Your task to perform on an android device: change keyboard looks Image 0: 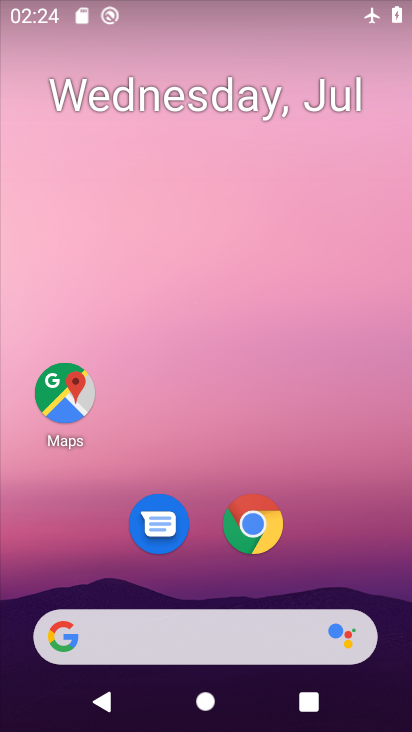
Step 0: drag from (246, 448) to (262, 27)
Your task to perform on an android device: change keyboard looks Image 1: 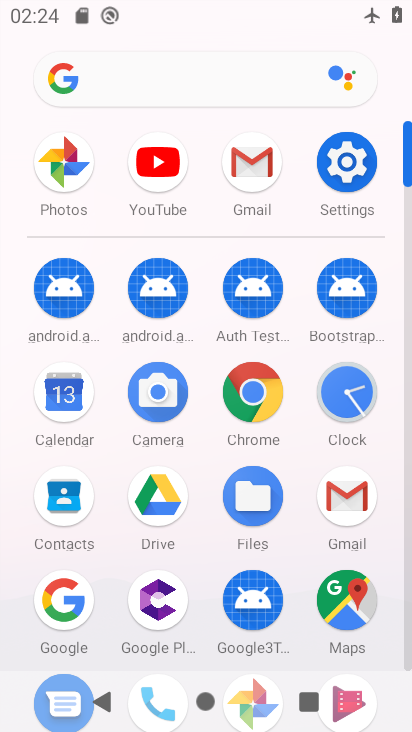
Step 1: click (346, 170)
Your task to perform on an android device: change keyboard looks Image 2: 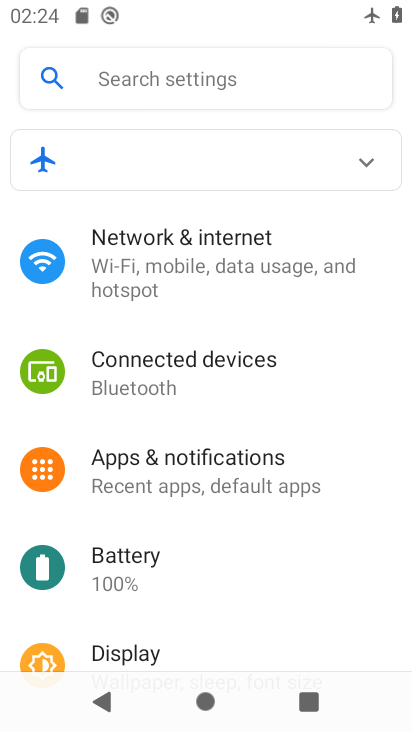
Step 2: drag from (184, 531) to (261, 31)
Your task to perform on an android device: change keyboard looks Image 3: 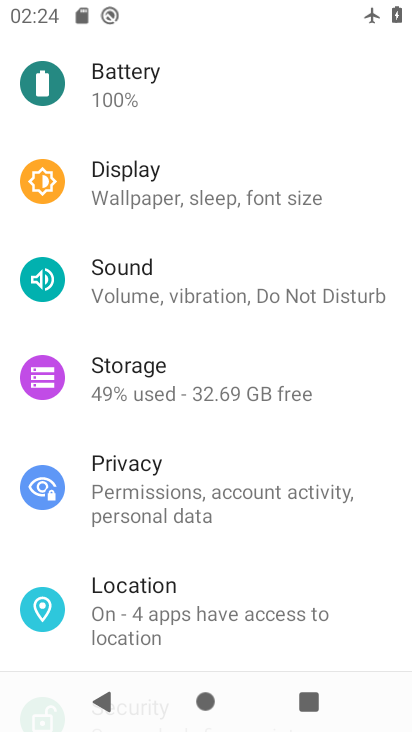
Step 3: drag from (246, 555) to (241, 66)
Your task to perform on an android device: change keyboard looks Image 4: 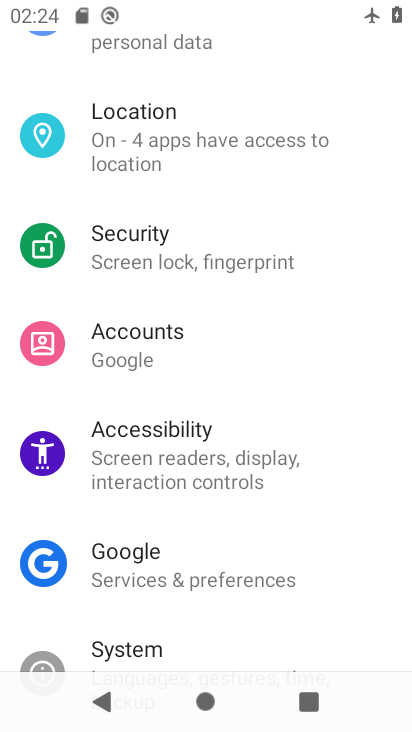
Step 4: drag from (210, 605) to (235, 434)
Your task to perform on an android device: change keyboard looks Image 5: 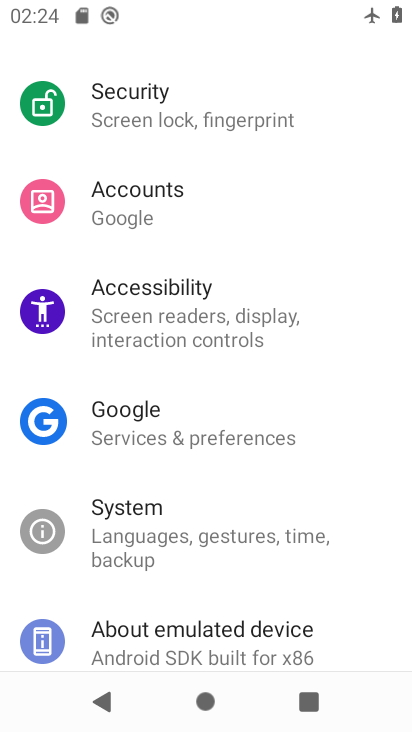
Step 5: click (225, 531)
Your task to perform on an android device: change keyboard looks Image 6: 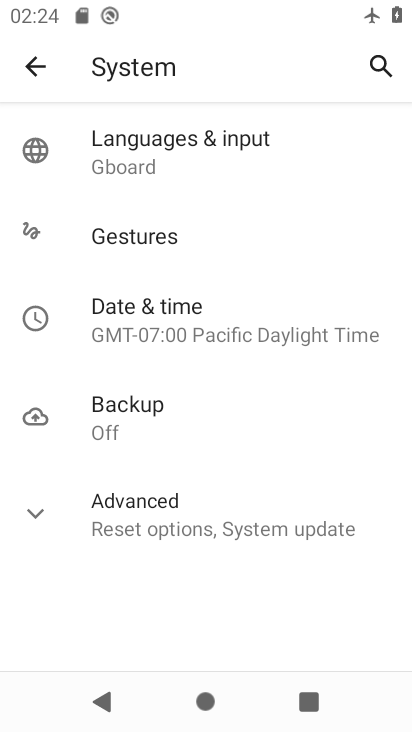
Step 6: click (158, 145)
Your task to perform on an android device: change keyboard looks Image 7: 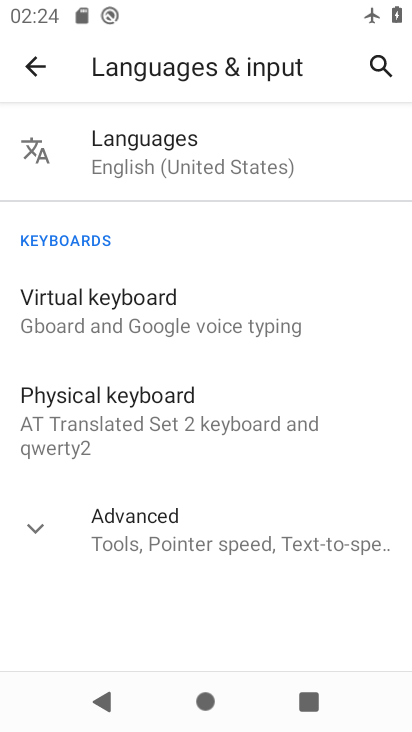
Step 7: click (150, 307)
Your task to perform on an android device: change keyboard looks Image 8: 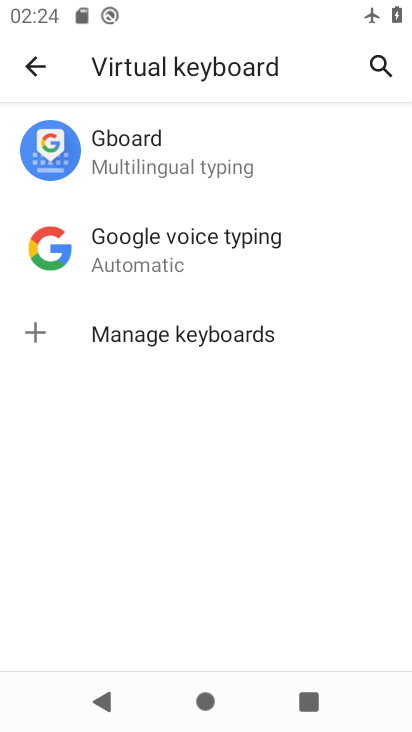
Step 8: click (155, 156)
Your task to perform on an android device: change keyboard looks Image 9: 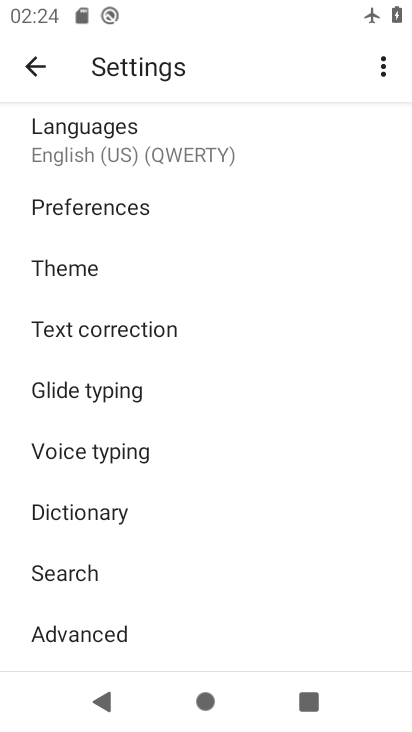
Step 9: click (82, 259)
Your task to perform on an android device: change keyboard looks Image 10: 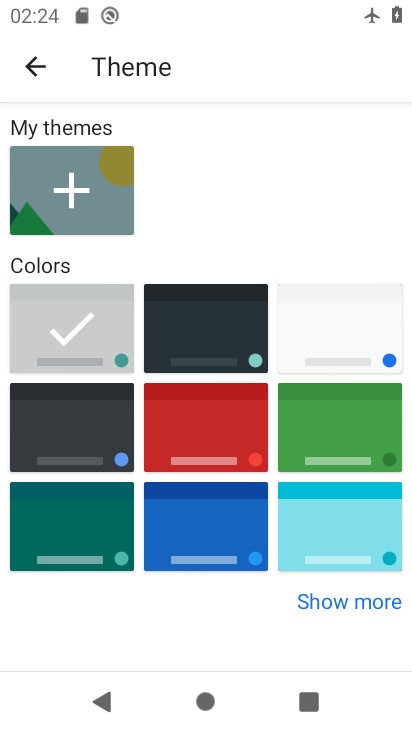
Step 10: click (205, 432)
Your task to perform on an android device: change keyboard looks Image 11: 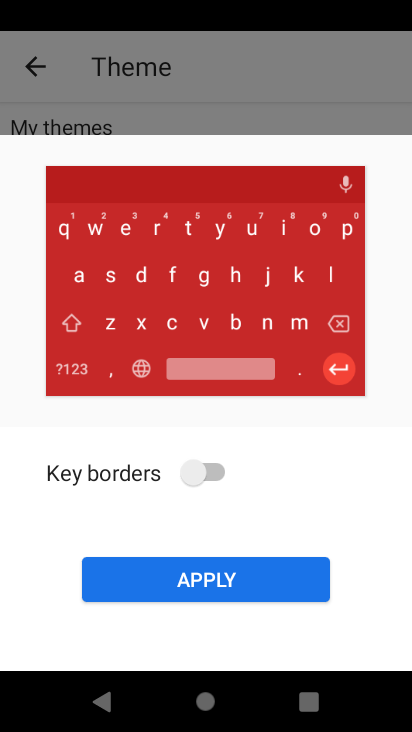
Step 11: click (205, 458)
Your task to perform on an android device: change keyboard looks Image 12: 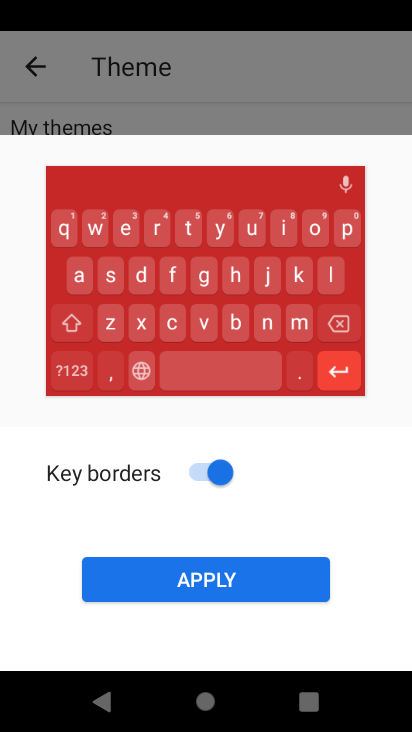
Step 12: click (263, 570)
Your task to perform on an android device: change keyboard looks Image 13: 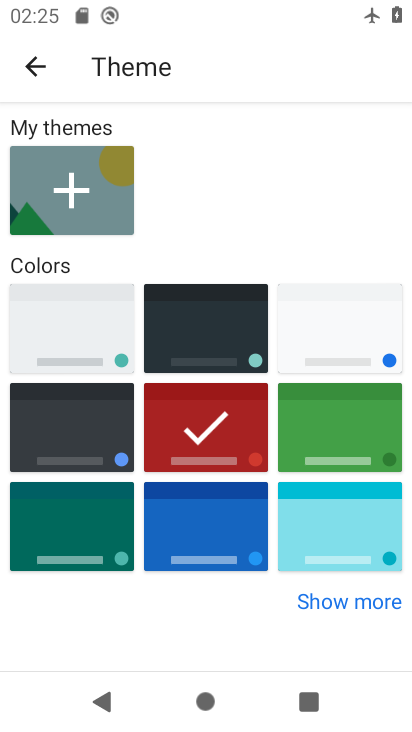
Step 13: task complete